Your task to perform on an android device: Do I have any events this weekend? Image 0: 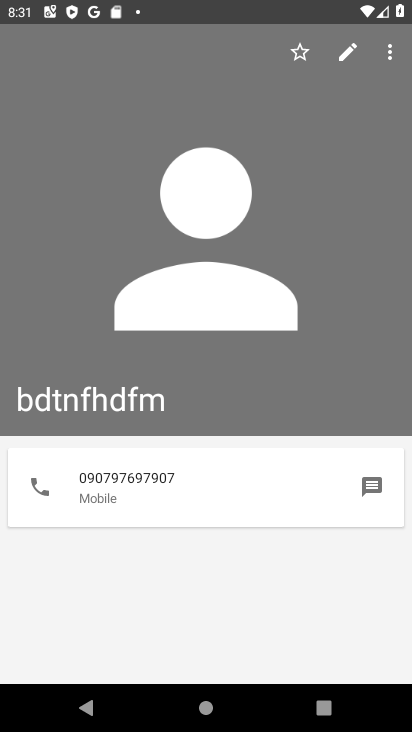
Step 0: press home button
Your task to perform on an android device: Do I have any events this weekend? Image 1: 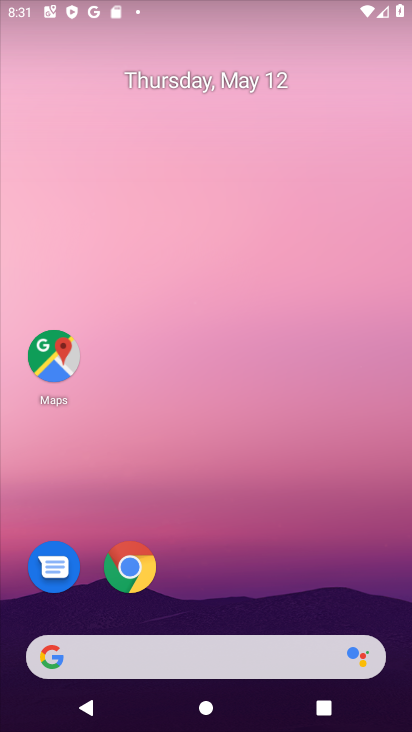
Step 1: drag from (271, 600) to (231, 253)
Your task to perform on an android device: Do I have any events this weekend? Image 2: 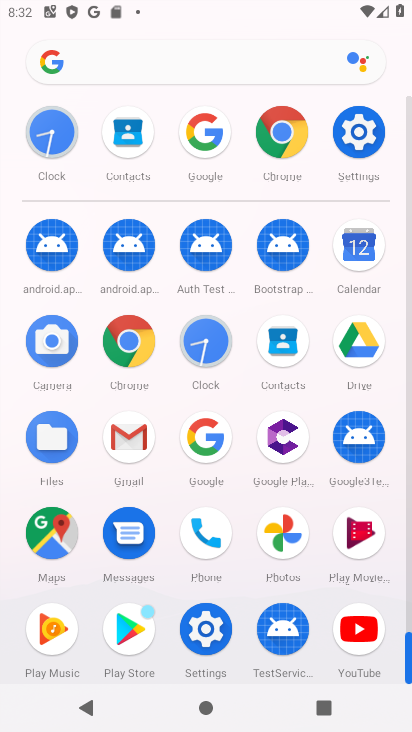
Step 2: click (376, 262)
Your task to perform on an android device: Do I have any events this weekend? Image 3: 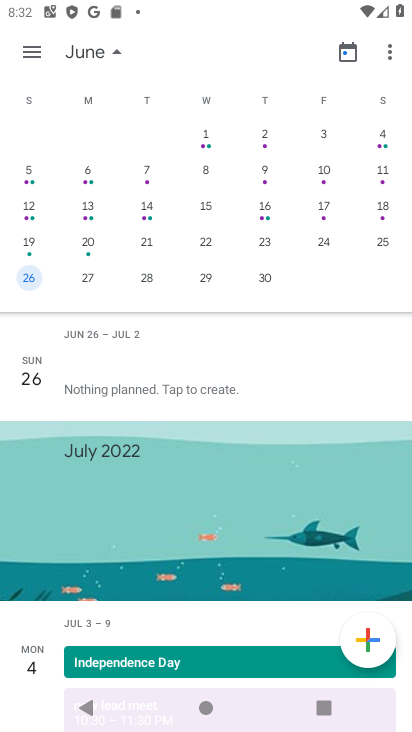
Step 3: drag from (105, 185) to (405, 199)
Your task to perform on an android device: Do I have any events this weekend? Image 4: 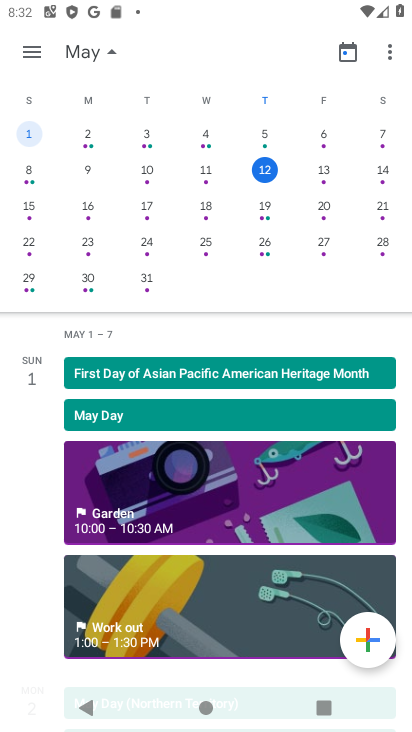
Step 4: click (270, 166)
Your task to perform on an android device: Do I have any events this weekend? Image 5: 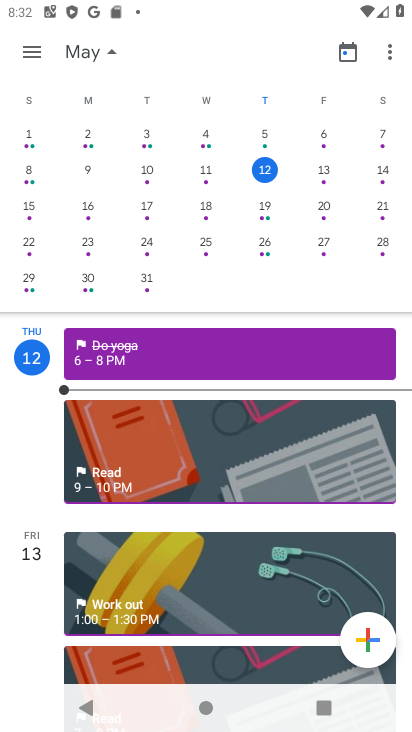
Step 5: task complete